Your task to perform on an android device: Open display settings Image 0: 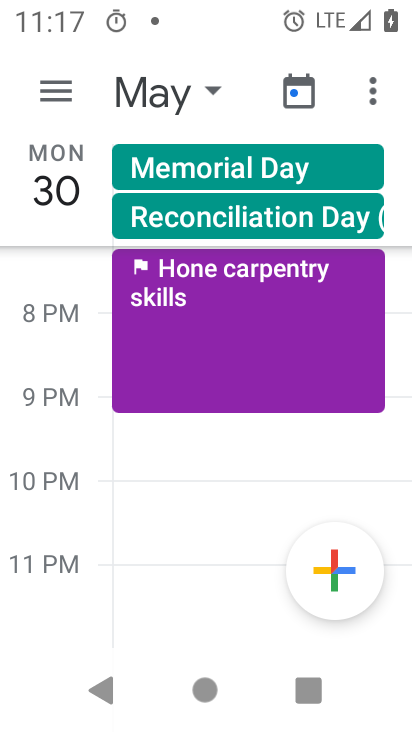
Step 0: drag from (250, 515) to (309, 138)
Your task to perform on an android device: Open display settings Image 1: 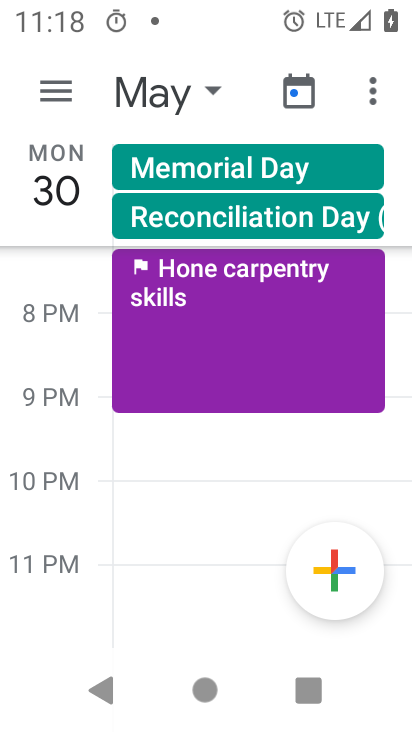
Step 1: drag from (255, 520) to (255, 364)
Your task to perform on an android device: Open display settings Image 2: 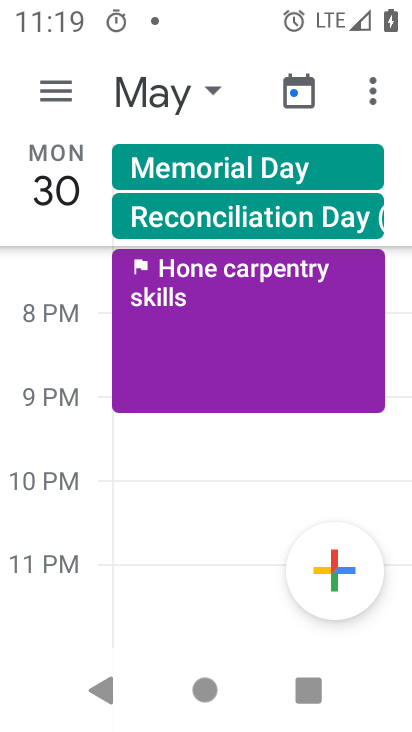
Step 2: press home button
Your task to perform on an android device: Open display settings Image 3: 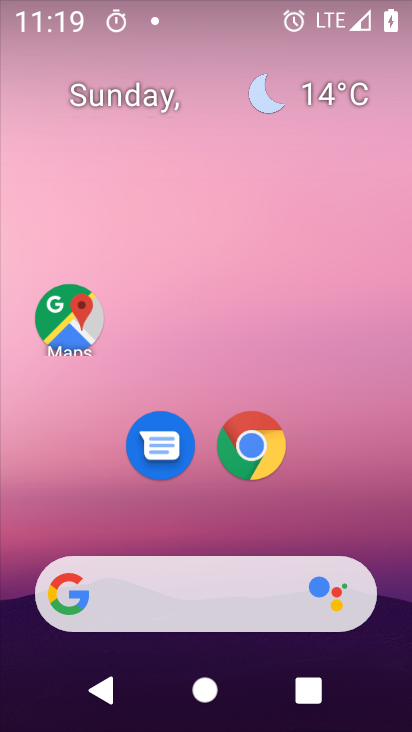
Step 3: drag from (211, 524) to (209, 248)
Your task to perform on an android device: Open display settings Image 4: 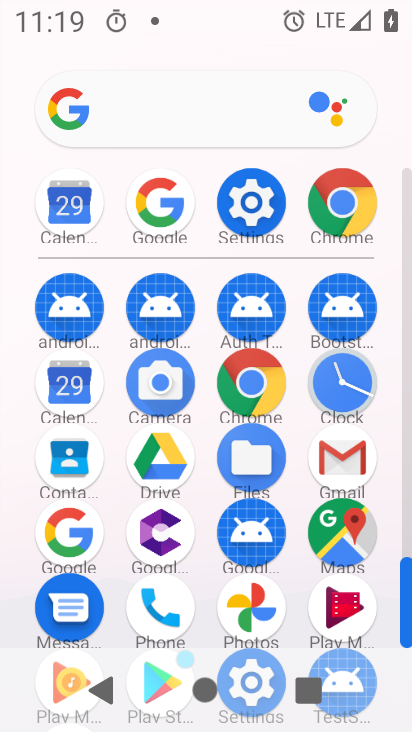
Step 4: click (262, 219)
Your task to perform on an android device: Open display settings Image 5: 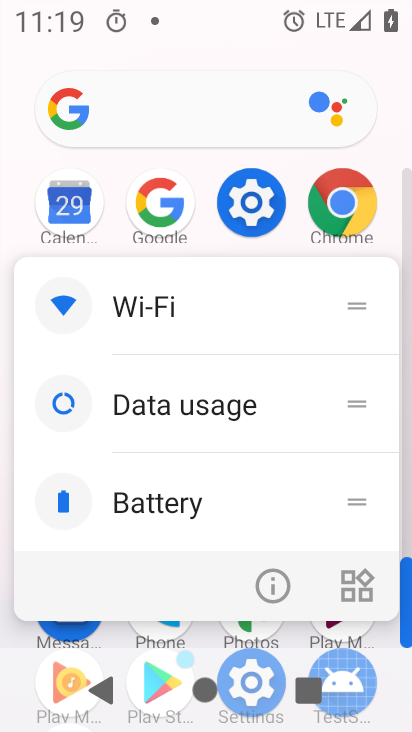
Step 5: click (264, 578)
Your task to perform on an android device: Open display settings Image 6: 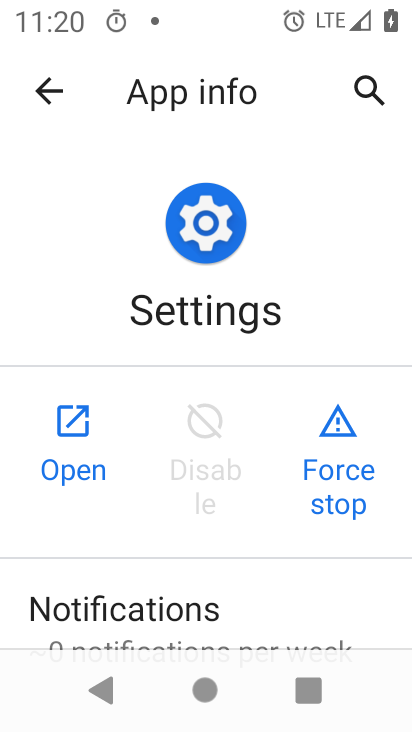
Step 6: click (79, 458)
Your task to perform on an android device: Open display settings Image 7: 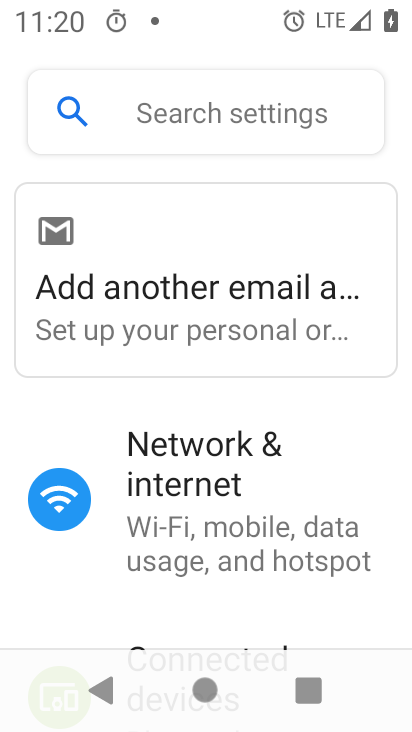
Step 7: drag from (222, 496) to (400, 68)
Your task to perform on an android device: Open display settings Image 8: 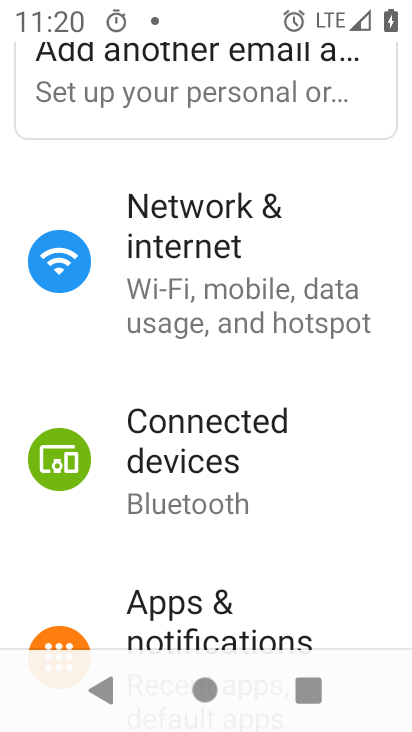
Step 8: drag from (230, 537) to (357, 128)
Your task to perform on an android device: Open display settings Image 9: 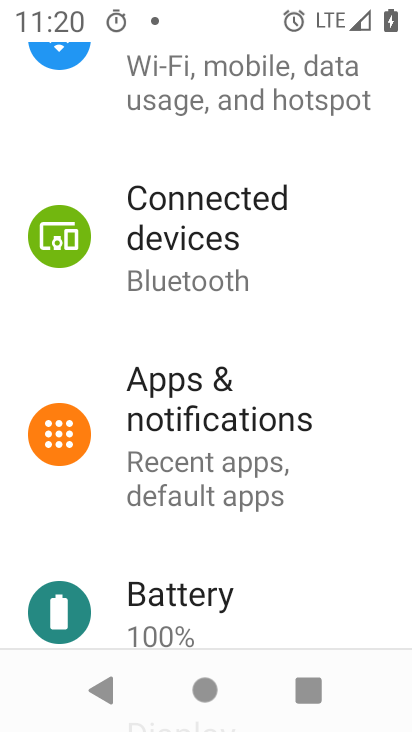
Step 9: drag from (242, 436) to (334, 4)
Your task to perform on an android device: Open display settings Image 10: 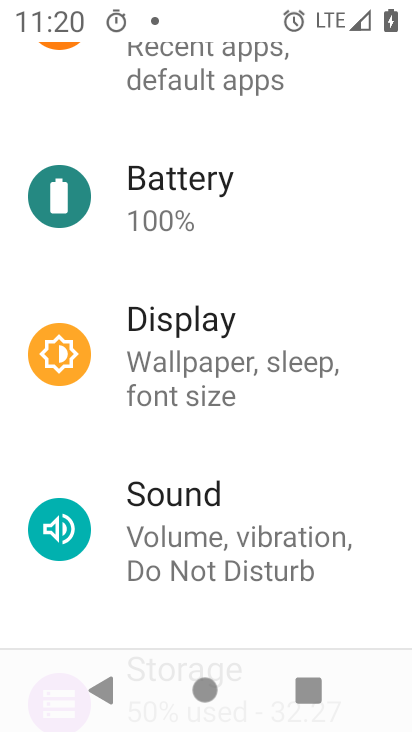
Step 10: click (203, 341)
Your task to perform on an android device: Open display settings Image 11: 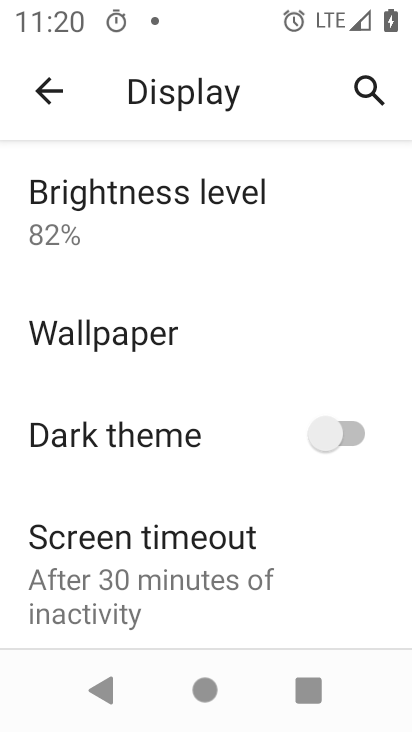
Step 11: task complete